Your task to perform on an android device: turn on wifi Image 0: 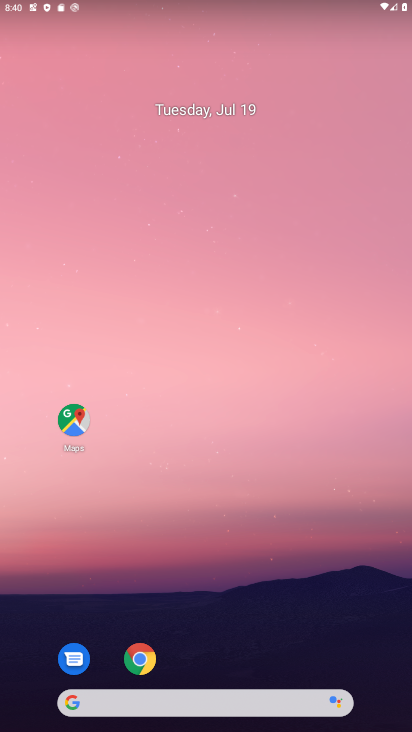
Step 0: drag from (210, 672) to (290, 82)
Your task to perform on an android device: turn on wifi Image 1: 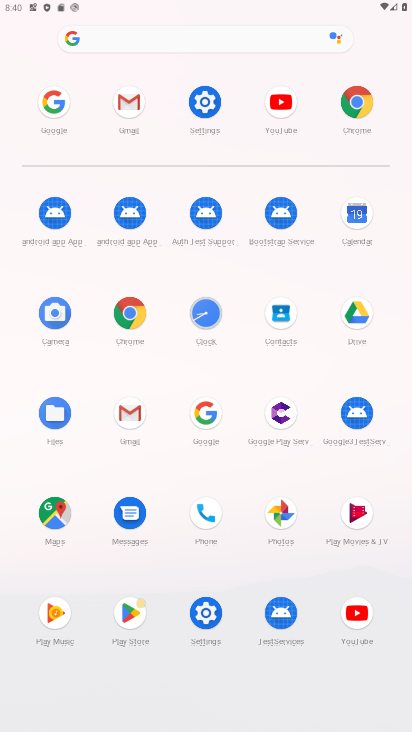
Step 1: click (198, 95)
Your task to perform on an android device: turn on wifi Image 2: 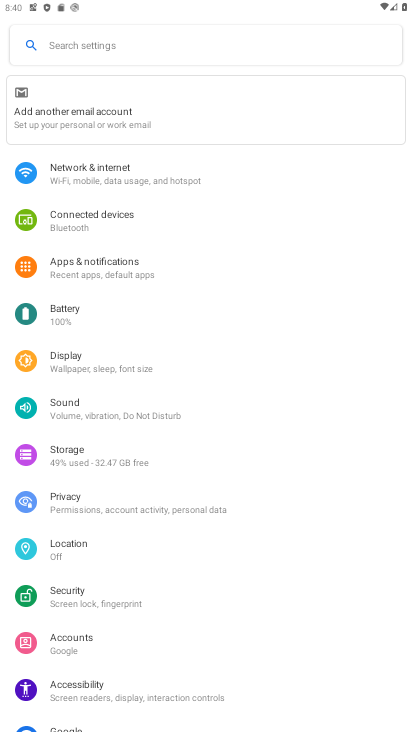
Step 2: click (98, 170)
Your task to perform on an android device: turn on wifi Image 3: 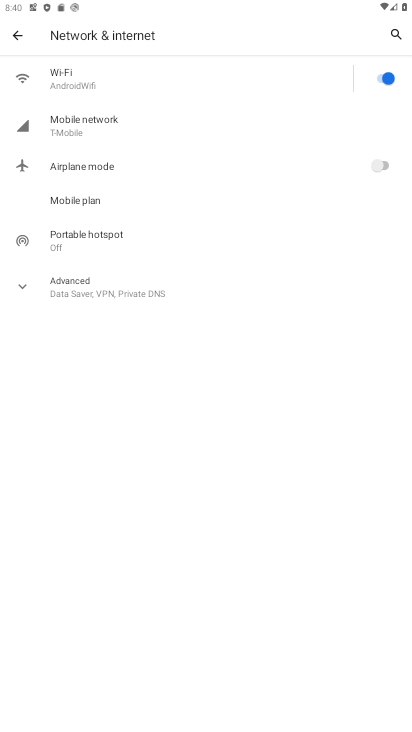
Step 3: task complete